Your task to perform on an android device: Open network settings Image 0: 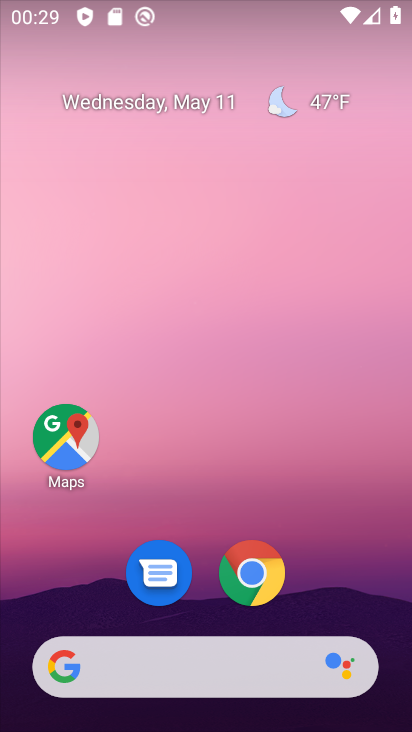
Step 0: press home button
Your task to perform on an android device: Open network settings Image 1: 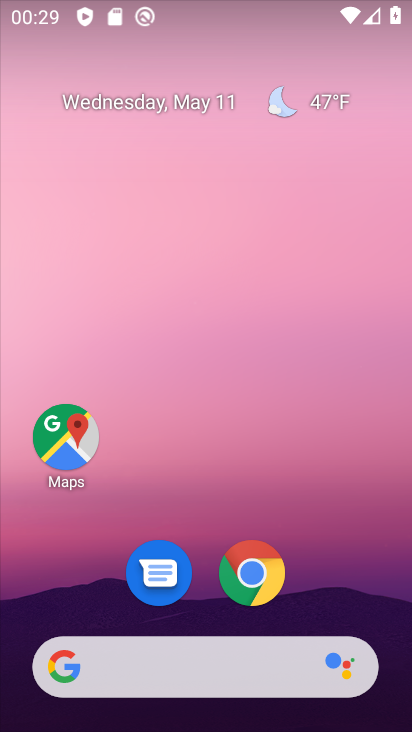
Step 1: drag from (370, 587) to (349, 21)
Your task to perform on an android device: Open network settings Image 2: 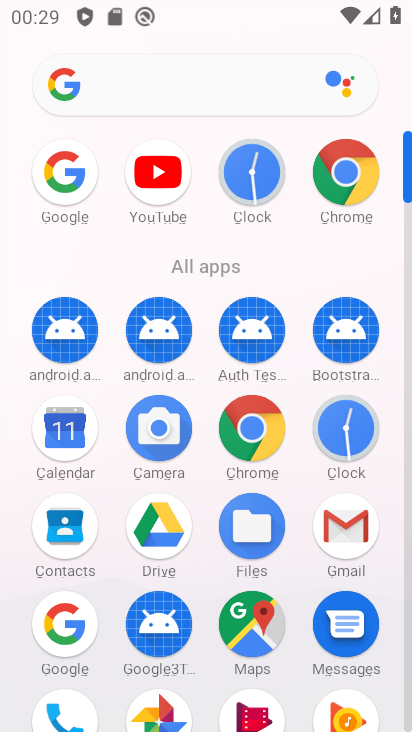
Step 2: click (411, 712)
Your task to perform on an android device: Open network settings Image 3: 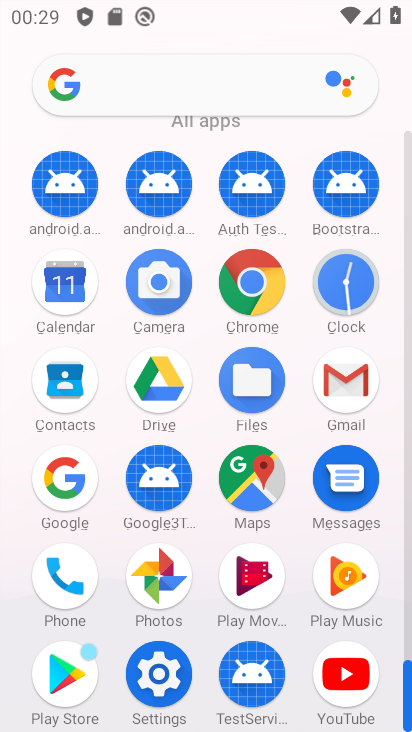
Step 3: click (167, 670)
Your task to perform on an android device: Open network settings Image 4: 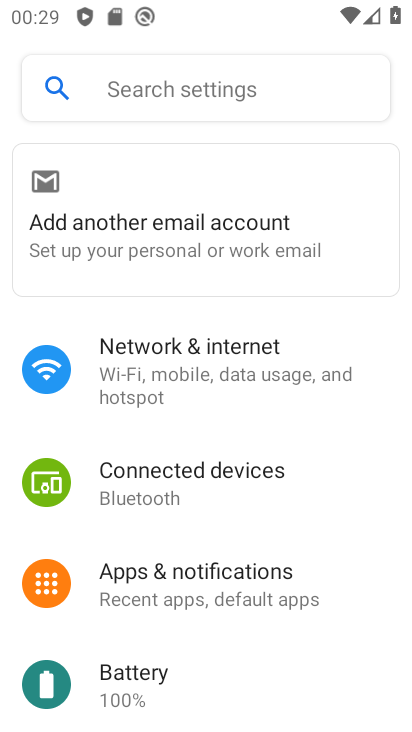
Step 4: click (180, 366)
Your task to perform on an android device: Open network settings Image 5: 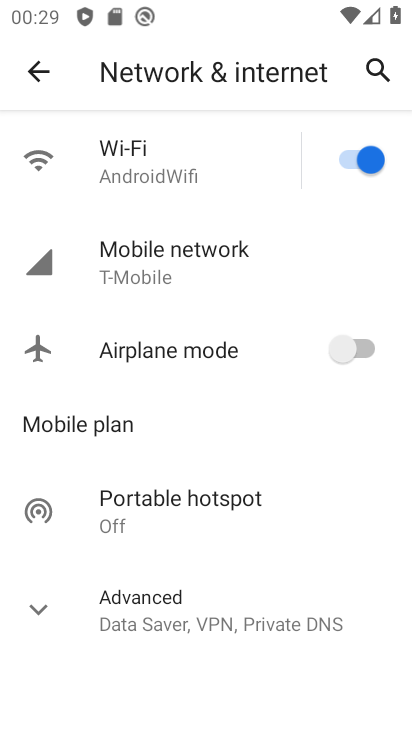
Step 5: task complete